Your task to perform on an android device: turn pop-ups on in chrome Image 0: 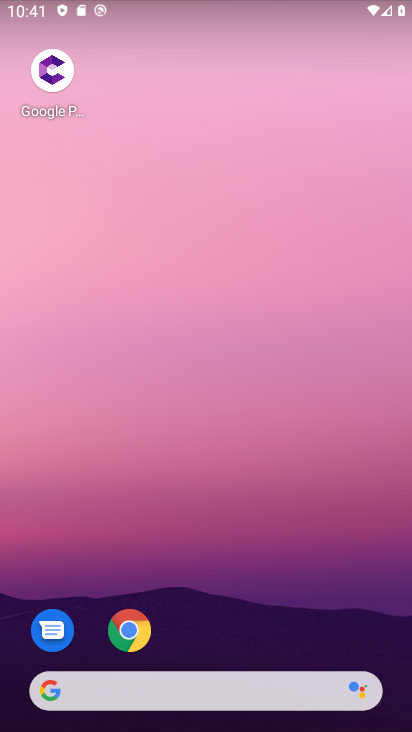
Step 0: drag from (231, 724) to (189, 141)
Your task to perform on an android device: turn pop-ups on in chrome Image 1: 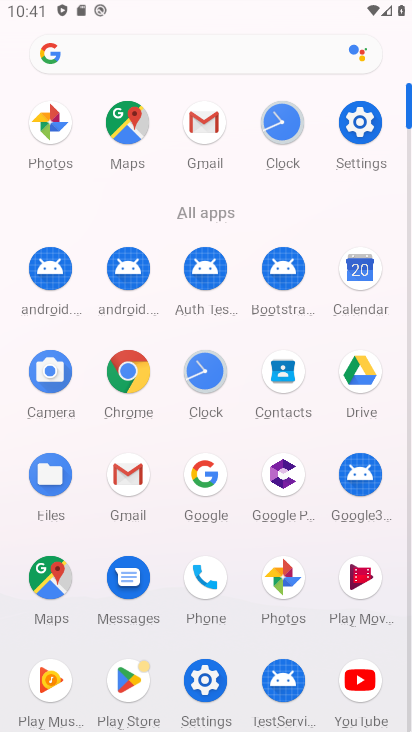
Step 1: click (128, 376)
Your task to perform on an android device: turn pop-ups on in chrome Image 2: 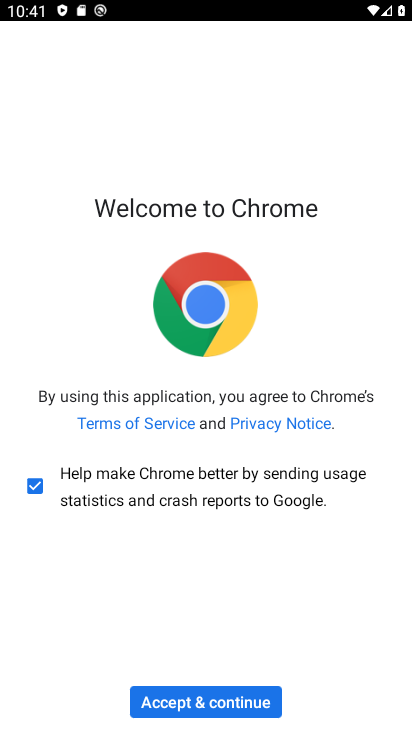
Step 2: click (186, 702)
Your task to perform on an android device: turn pop-ups on in chrome Image 3: 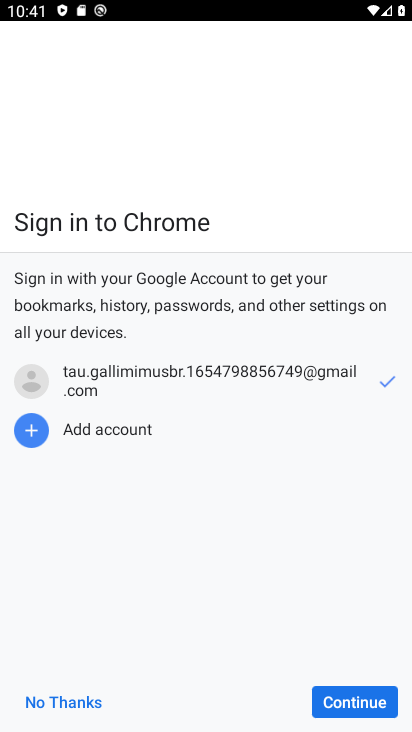
Step 3: click (332, 699)
Your task to perform on an android device: turn pop-ups on in chrome Image 4: 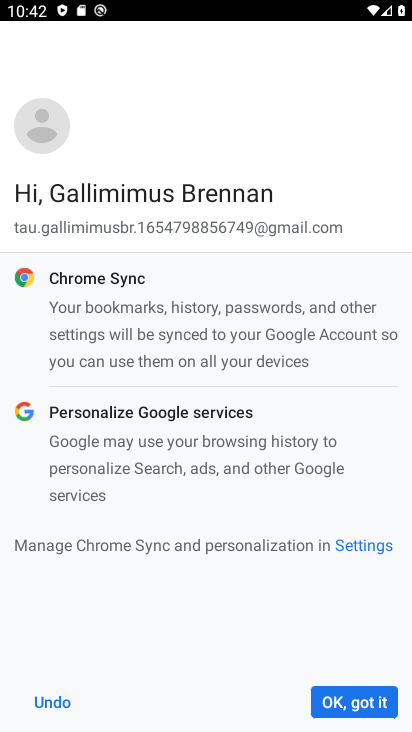
Step 4: click (332, 699)
Your task to perform on an android device: turn pop-ups on in chrome Image 5: 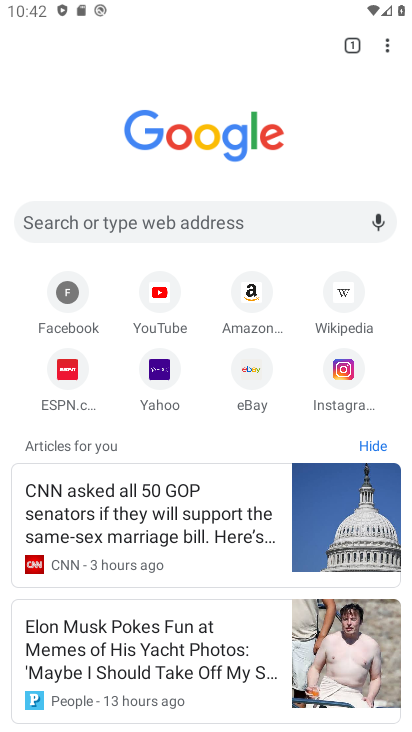
Step 5: click (388, 51)
Your task to perform on an android device: turn pop-ups on in chrome Image 6: 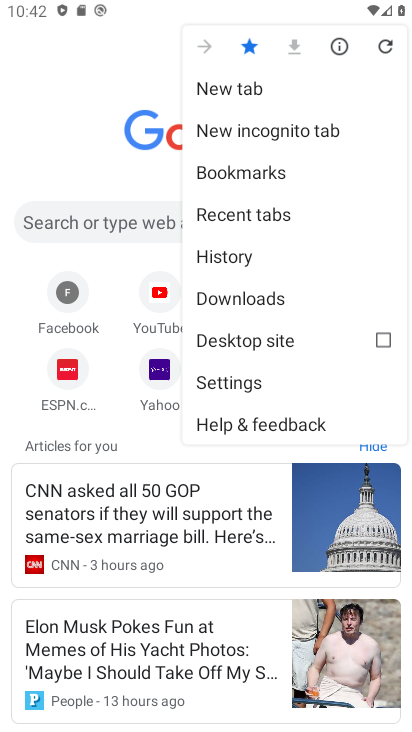
Step 6: click (235, 384)
Your task to perform on an android device: turn pop-ups on in chrome Image 7: 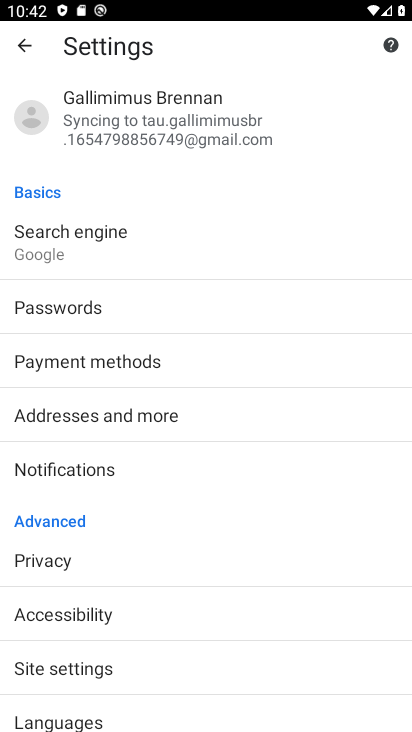
Step 7: click (51, 670)
Your task to perform on an android device: turn pop-ups on in chrome Image 8: 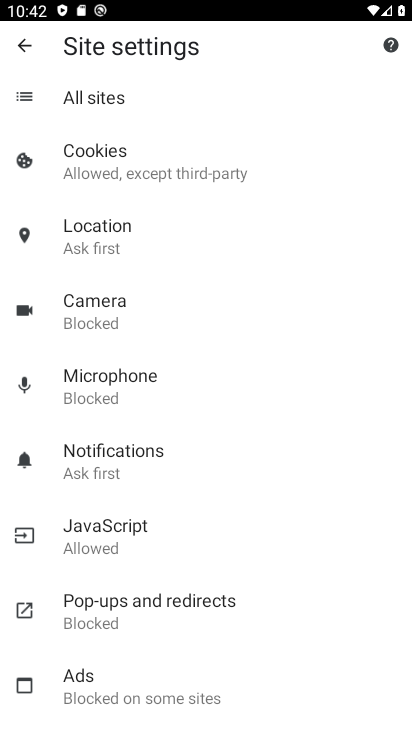
Step 8: drag from (102, 636) to (101, 440)
Your task to perform on an android device: turn pop-ups on in chrome Image 9: 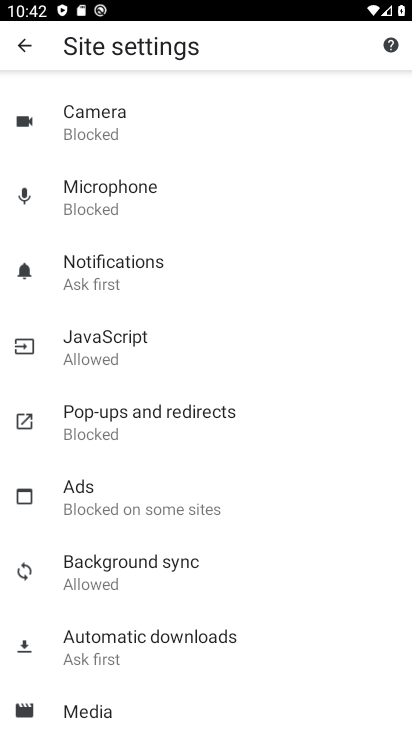
Step 9: click (96, 415)
Your task to perform on an android device: turn pop-ups on in chrome Image 10: 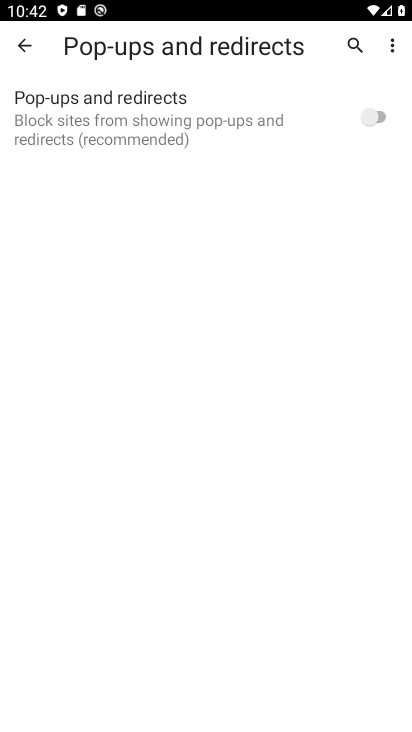
Step 10: click (380, 115)
Your task to perform on an android device: turn pop-ups on in chrome Image 11: 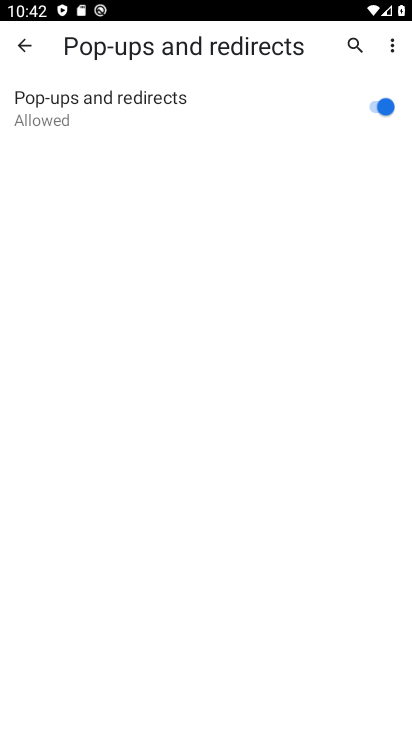
Step 11: task complete